Your task to perform on an android device: turn on notifications settings in the gmail app Image 0: 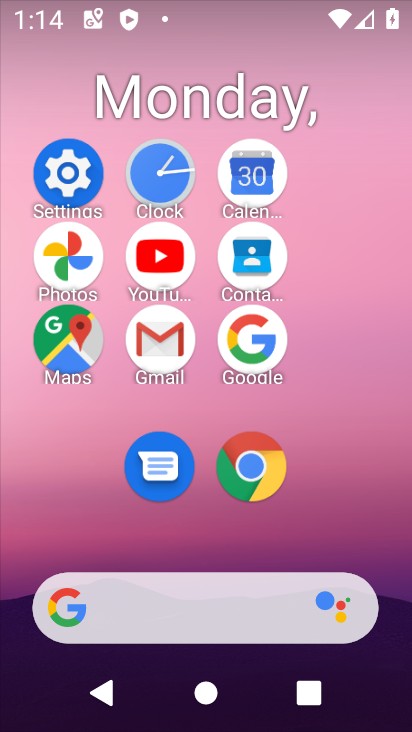
Step 0: click (179, 337)
Your task to perform on an android device: turn on notifications settings in the gmail app Image 1: 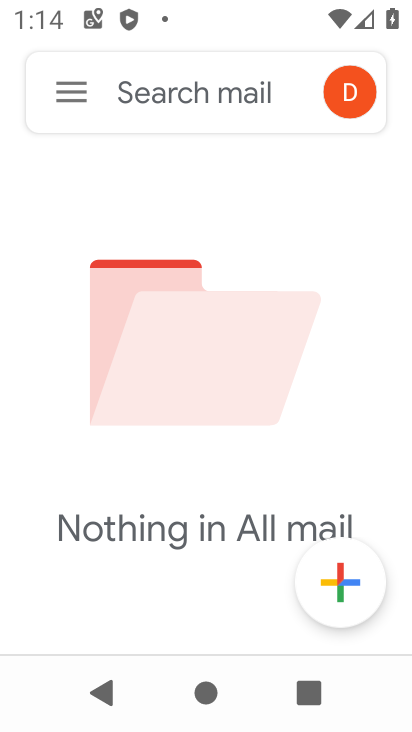
Step 1: click (82, 108)
Your task to perform on an android device: turn on notifications settings in the gmail app Image 2: 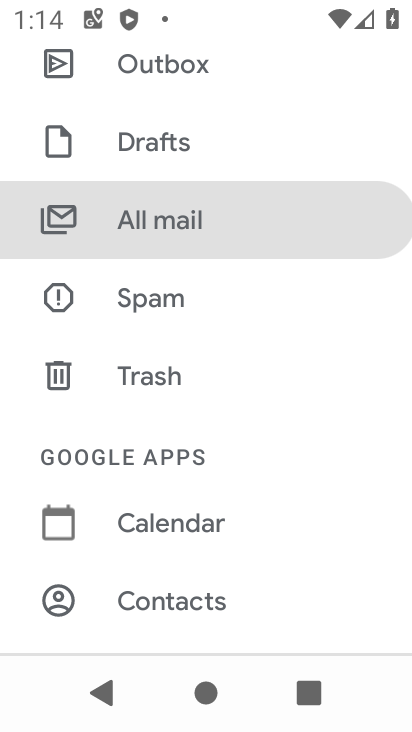
Step 2: drag from (204, 579) to (228, 168)
Your task to perform on an android device: turn on notifications settings in the gmail app Image 3: 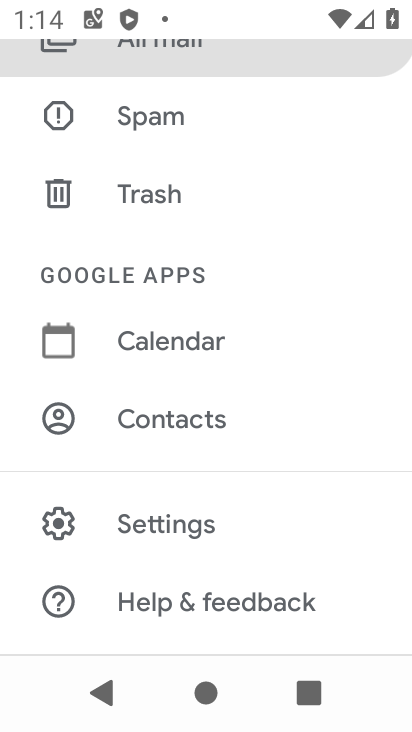
Step 3: click (276, 512)
Your task to perform on an android device: turn on notifications settings in the gmail app Image 4: 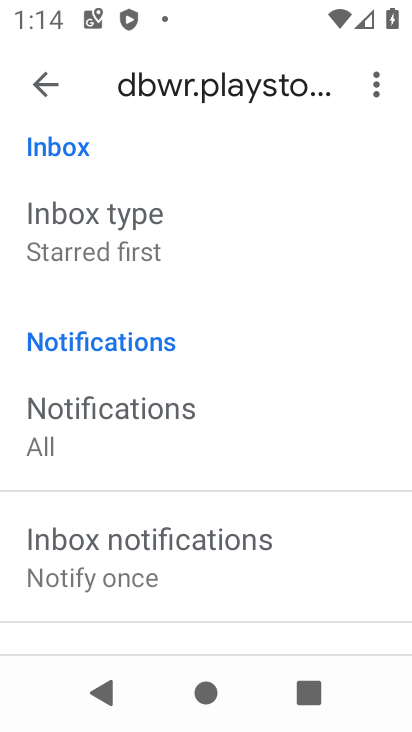
Step 4: task complete